Your task to perform on an android device: Do I have any events tomorrow? Image 0: 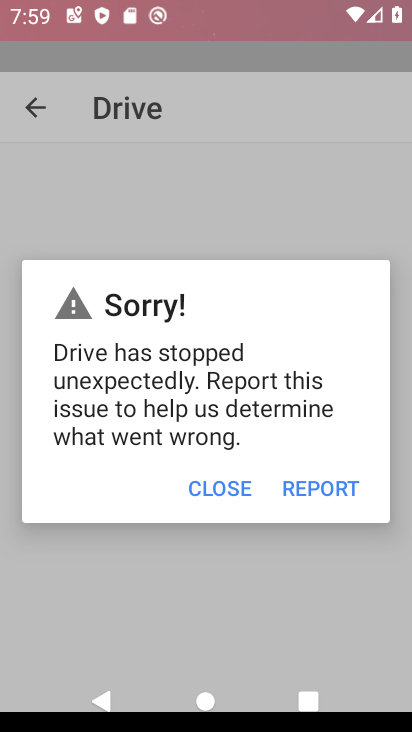
Step 0: click (386, 310)
Your task to perform on an android device: Do I have any events tomorrow? Image 1: 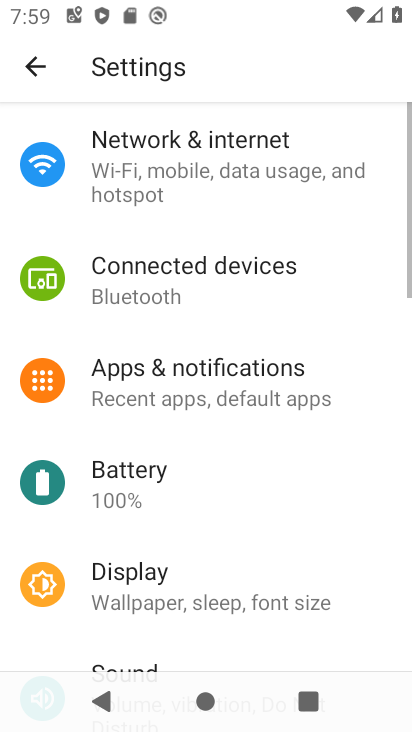
Step 1: press home button
Your task to perform on an android device: Do I have any events tomorrow? Image 2: 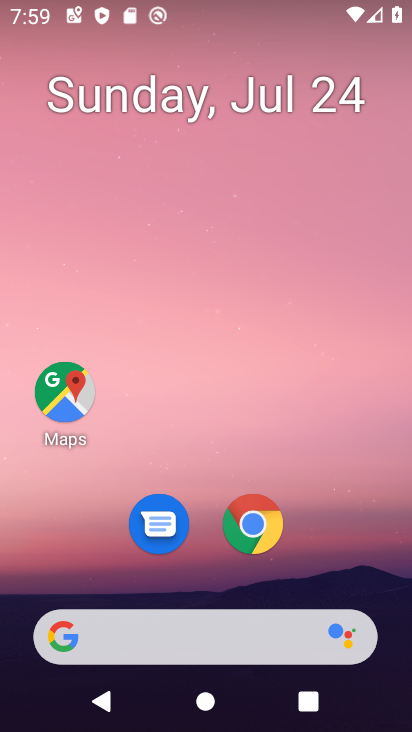
Step 2: drag from (179, 635) to (359, 48)
Your task to perform on an android device: Do I have any events tomorrow? Image 3: 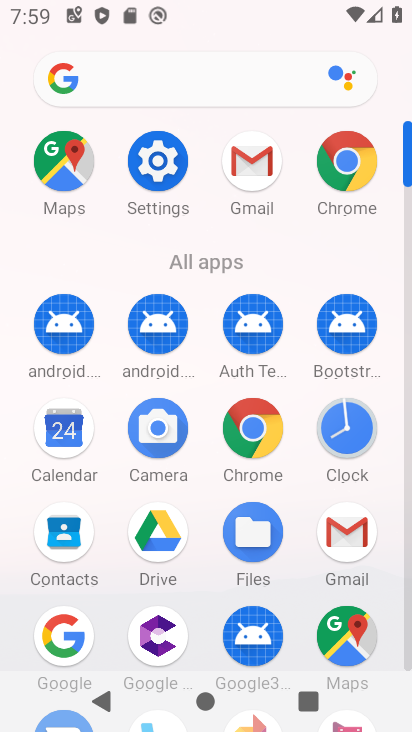
Step 3: click (60, 444)
Your task to perform on an android device: Do I have any events tomorrow? Image 4: 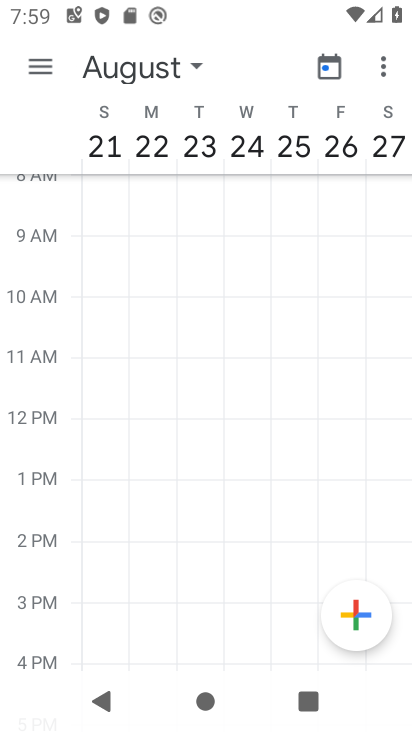
Step 4: click (133, 75)
Your task to perform on an android device: Do I have any events tomorrow? Image 5: 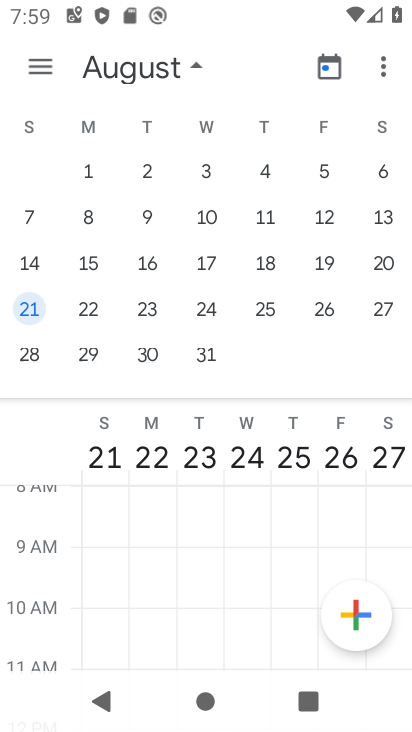
Step 5: drag from (44, 228) to (408, 268)
Your task to perform on an android device: Do I have any events tomorrow? Image 6: 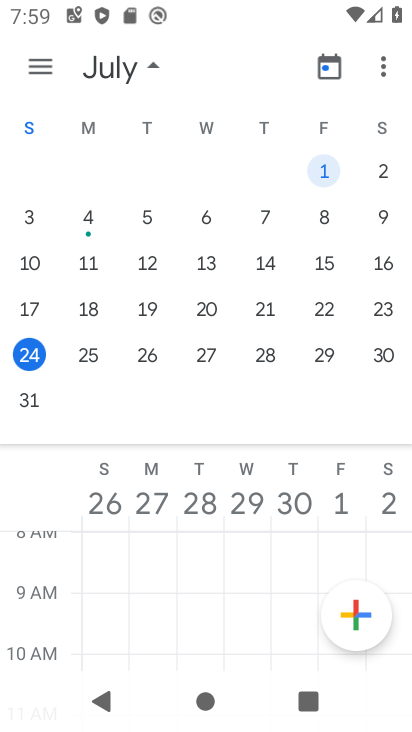
Step 6: click (90, 351)
Your task to perform on an android device: Do I have any events tomorrow? Image 7: 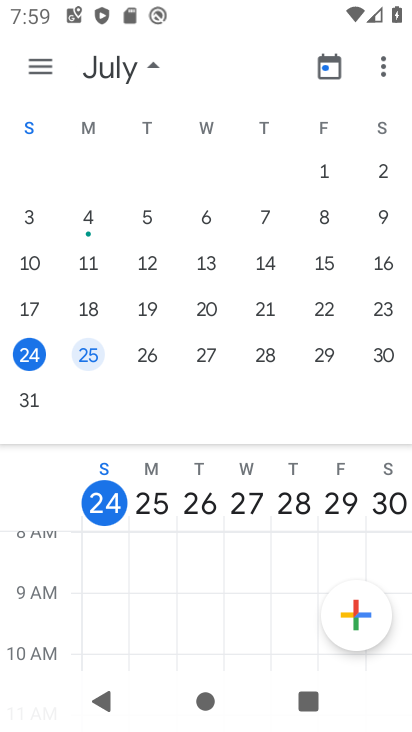
Step 7: click (93, 358)
Your task to perform on an android device: Do I have any events tomorrow? Image 8: 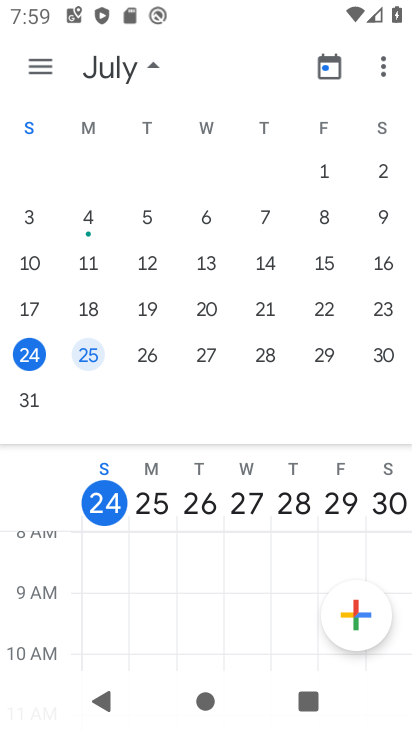
Step 8: click (43, 62)
Your task to perform on an android device: Do I have any events tomorrow? Image 9: 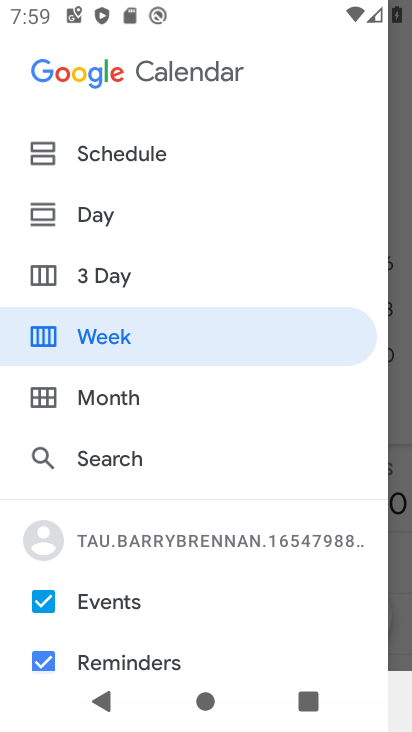
Step 9: click (99, 229)
Your task to perform on an android device: Do I have any events tomorrow? Image 10: 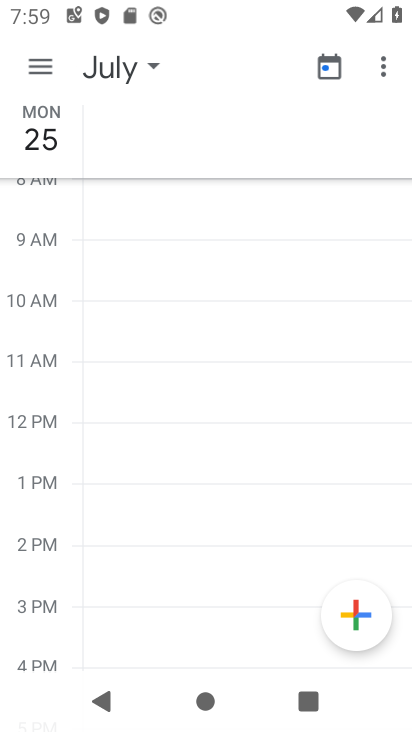
Step 10: click (34, 59)
Your task to perform on an android device: Do I have any events tomorrow? Image 11: 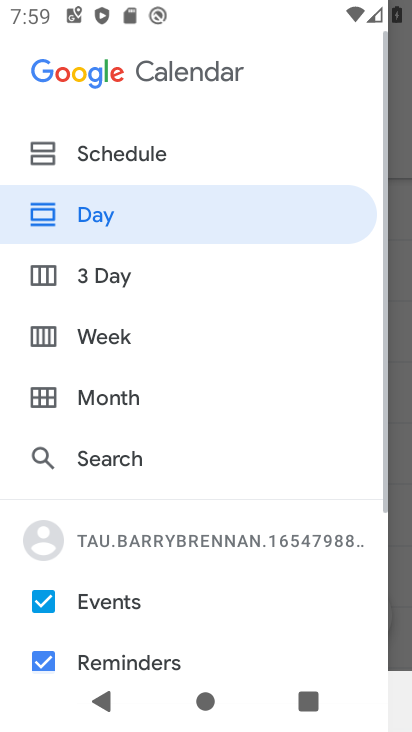
Step 11: click (139, 150)
Your task to perform on an android device: Do I have any events tomorrow? Image 12: 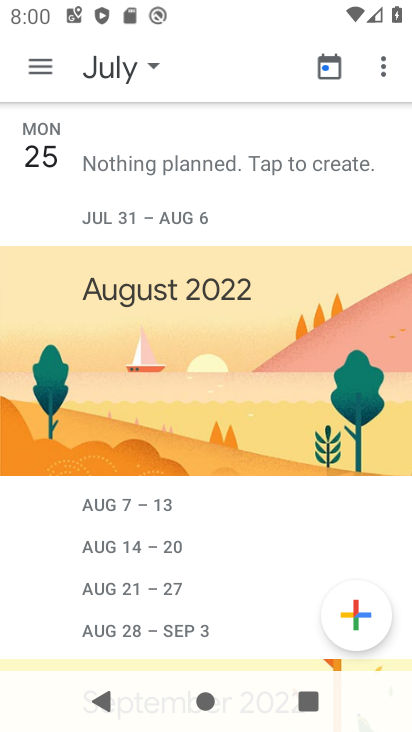
Step 12: task complete